Your task to perform on an android device: Open internet settings Image 0: 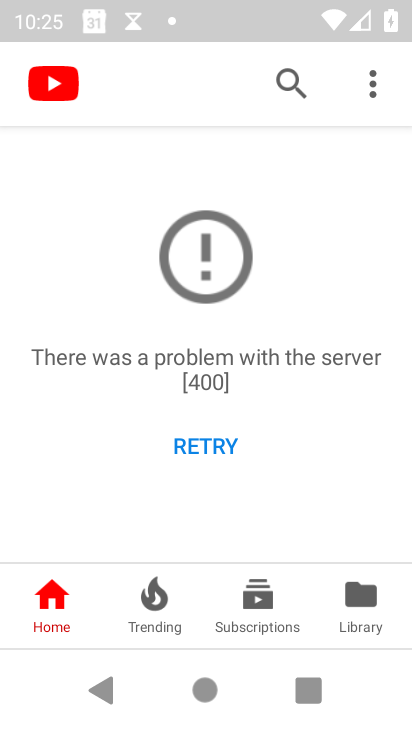
Step 0: press home button
Your task to perform on an android device: Open internet settings Image 1: 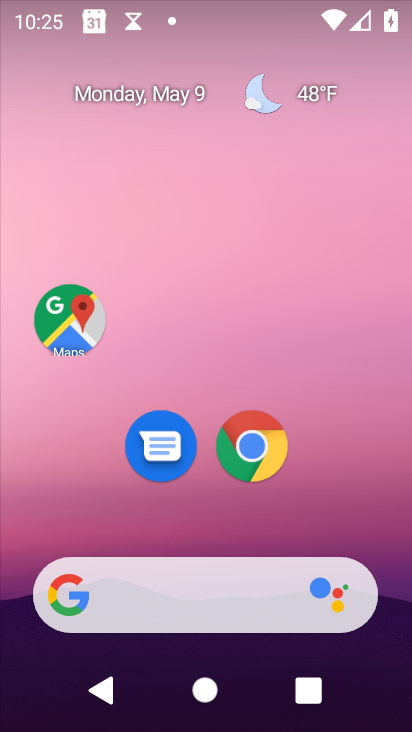
Step 1: drag from (307, 519) to (287, 76)
Your task to perform on an android device: Open internet settings Image 2: 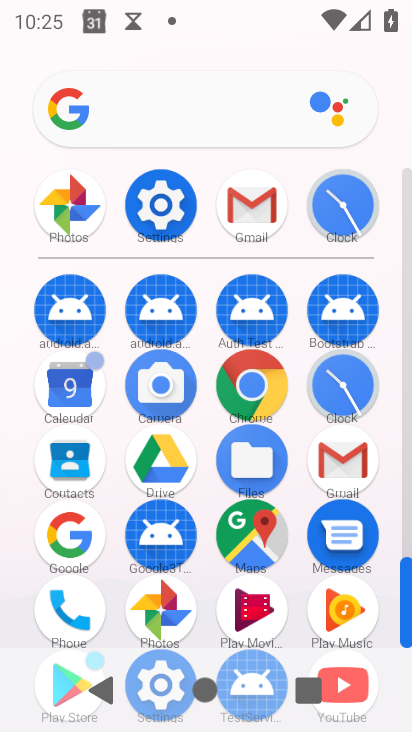
Step 2: click (170, 202)
Your task to perform on an android device: Open internet settings Image 3: 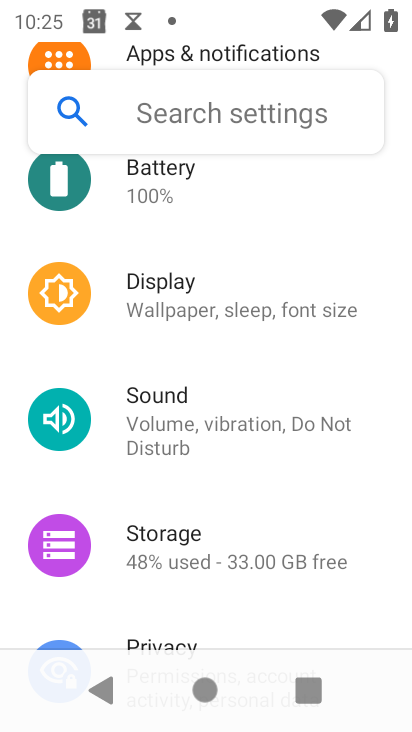
Step 3: drag from (228, 205) to (163, 641)
Your task to perform on an android device: Open internet settings Image 4: 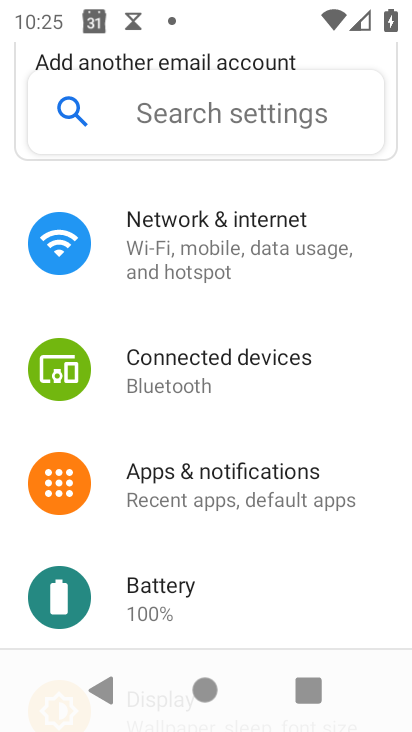
Step 4: click (222, 260)
Your task to perform on an android device: Open internet settings Image 5: 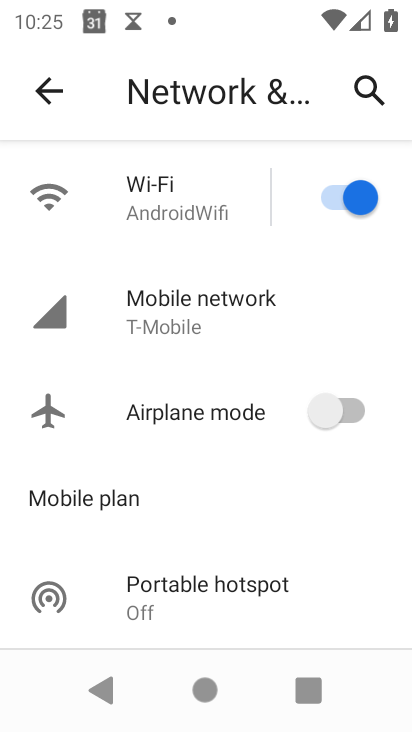
Step 5: task complete